Your task to perform on an android device: Open Maps and search for coffee Image 0: 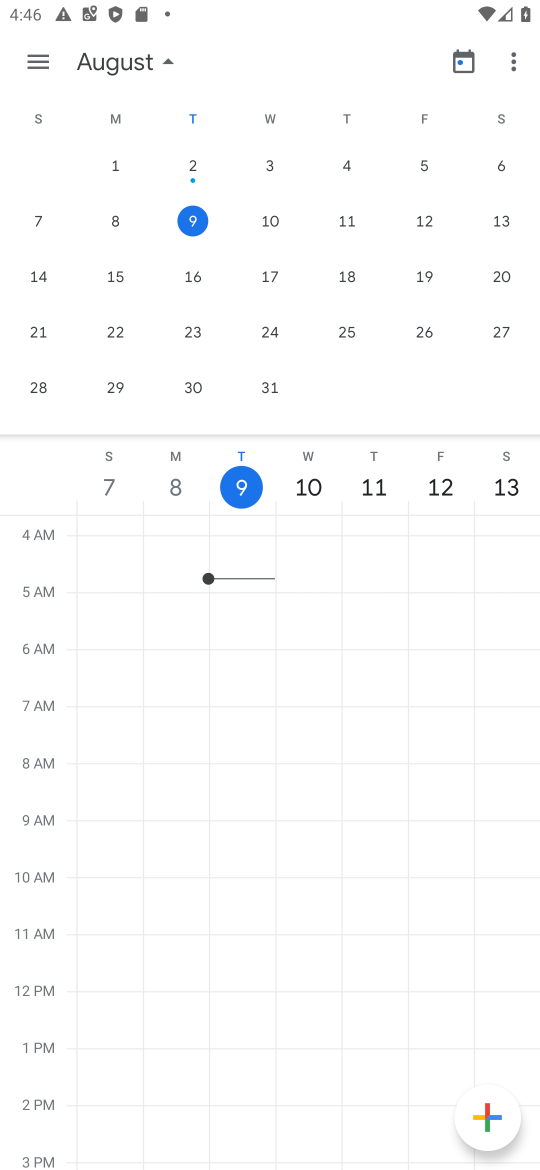
Step 0: press home button
Your task to perform on an android device: Open Maps and search for coffee Image 1: 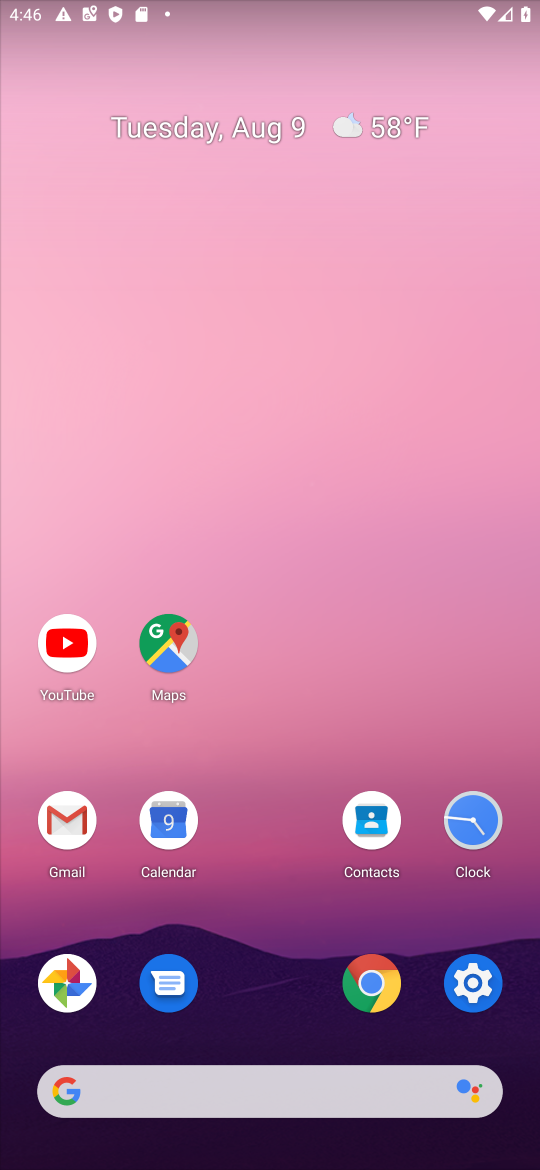
Step 1: click (159, 633)
Your task to perform on an android device: Open Maps and search for coffee Image 2: 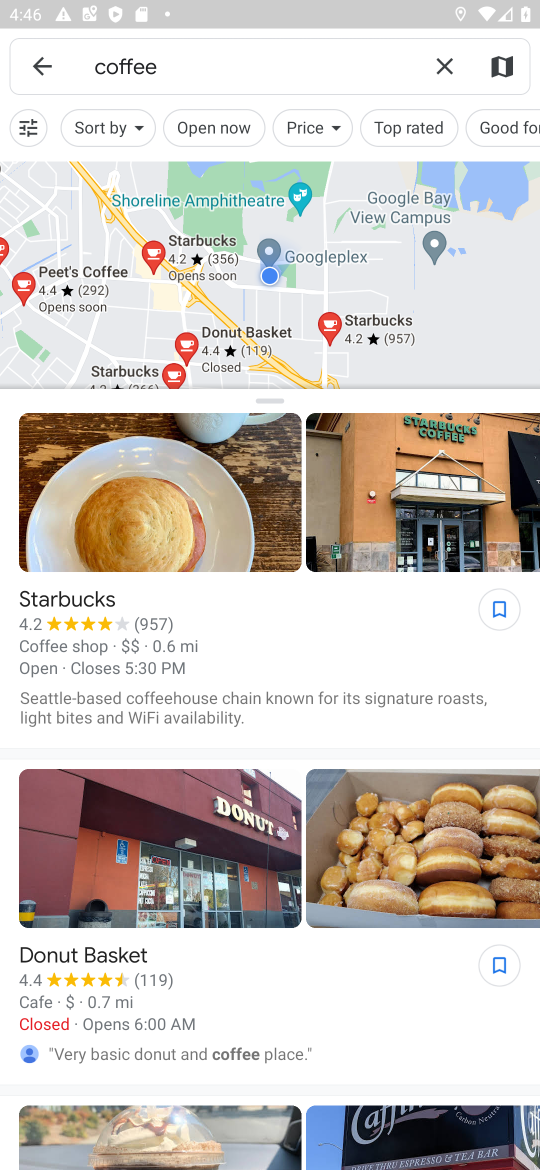
Step 2: task complete